Your task to perform on an android device: Go to notification settings Image 0: 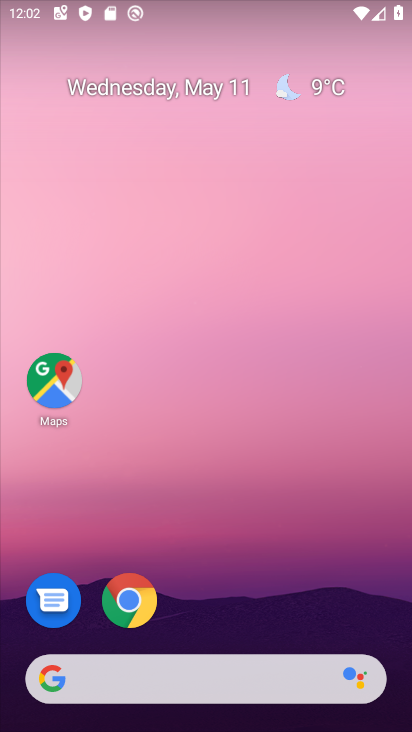
Step 0: drag from (180, 724) to (227, 189)
Your task to perform on an android device: Go to notification settings Image 1: 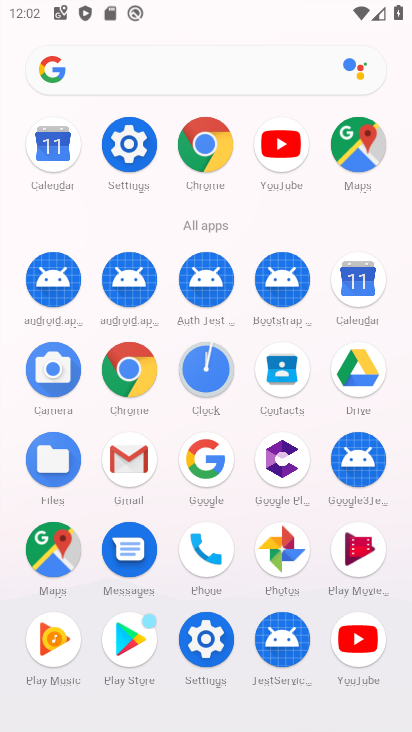
Step 1: click (119, 144)
Your task to perform on an android device: Go to notification settings Image 2: 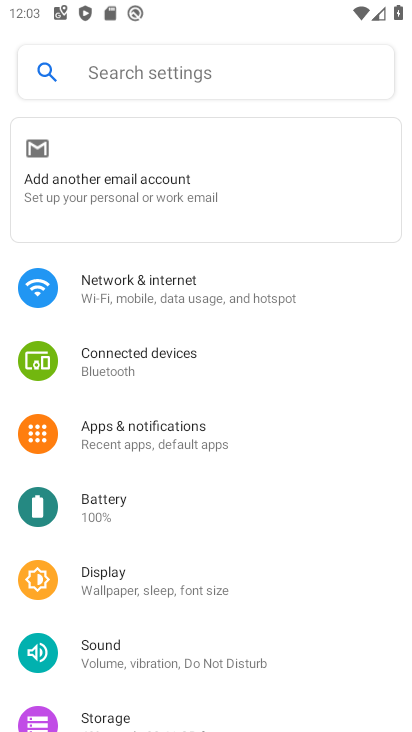
Step 2: click (202, 426)
Your task to perform on an android device: Go to notification settings Image 3: 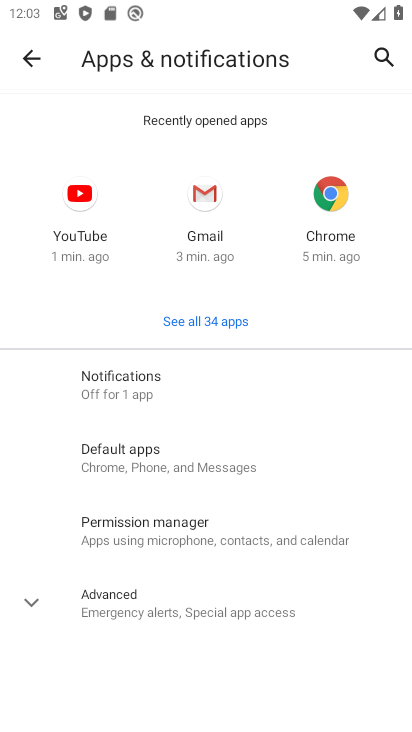
Step 3: task complete